Your task to perform on an android device: Go to Android settings Image 0: 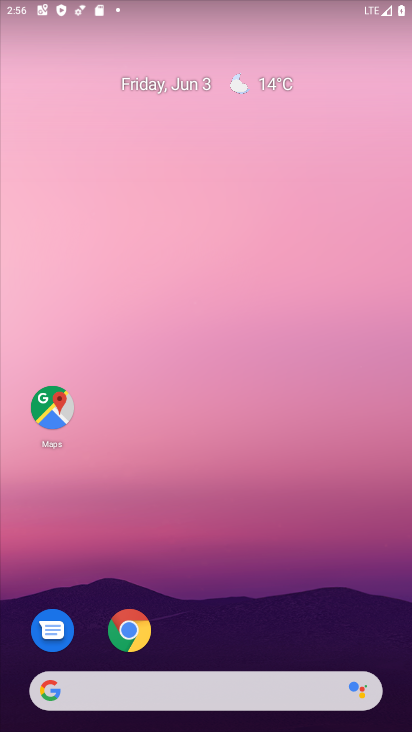
Step 0: drag from (206, 651) to (146, 153)
Your task to perform on an android device: Go to Android settings Image 1: 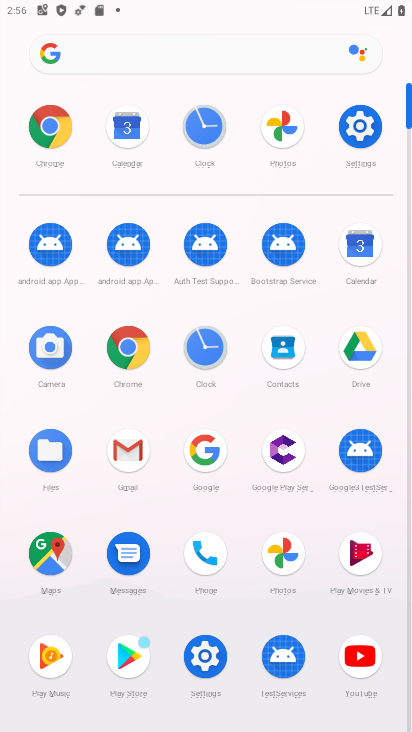
Step 1: click (216, 655)
Your task to perform on an android device: Go to Android settings Image 2: 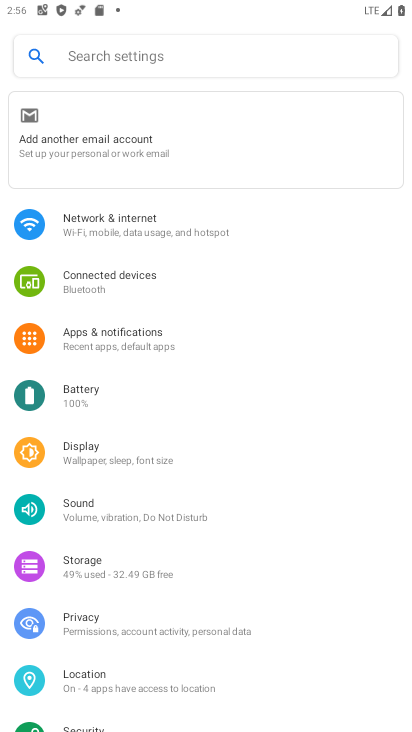
Step 2: task complete